Your task to perform on an android device: Search for seafood restaurants on Google Maps Image 0: 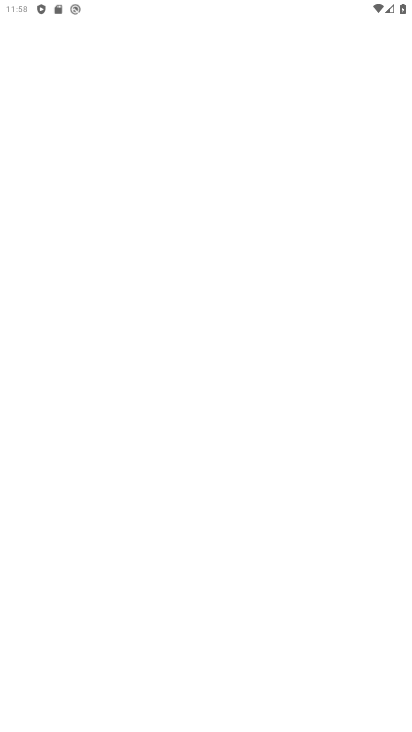
Step 0: press home button
Your task to perform on an android device: Search for seafood restaurants on Google Maps Image 1: 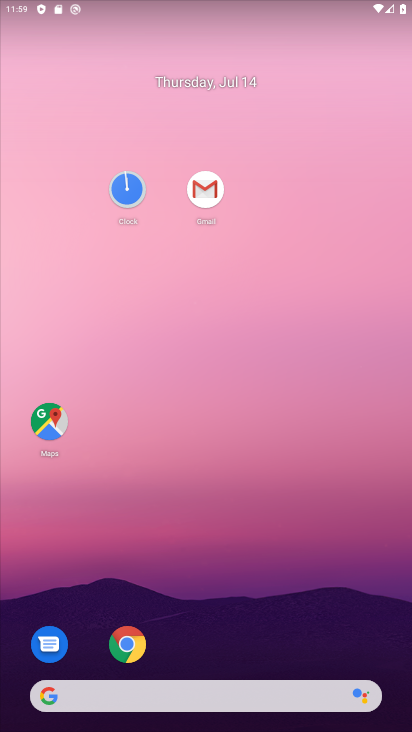
Step 1: click (51, 417)
Your task to perform on an android device: Search for seafood restaurants on Google Maps Image 2: 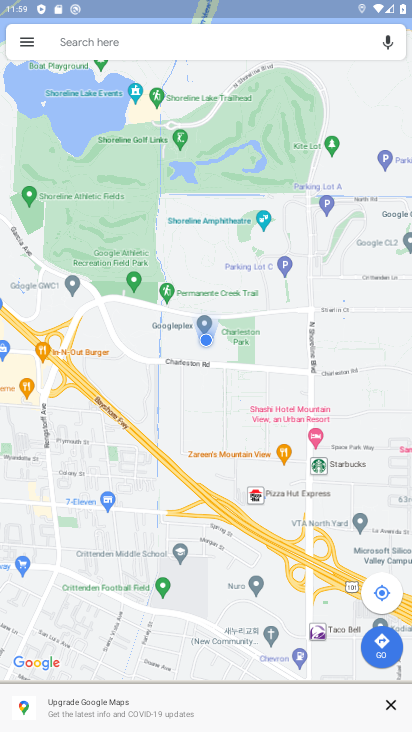
Step 2: click (185, 37)
Your task to perform on an android device: Search for seafood restaurants on Google Maps Image 3: 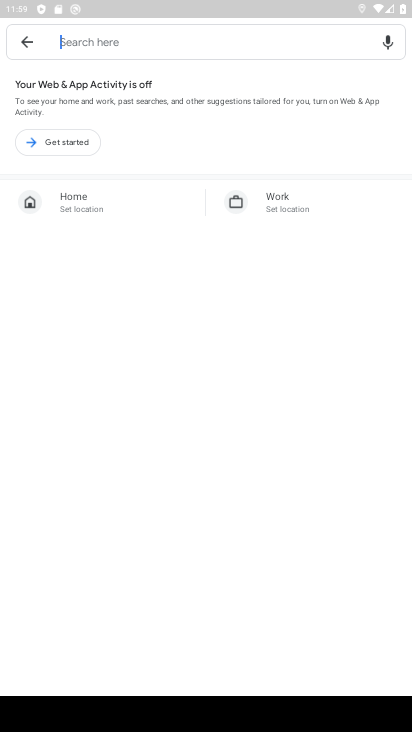
Step 3: type "seafood restaurants"
Your task to perform on an android device: Search for seafood restaurants on Google Maps Image 4: 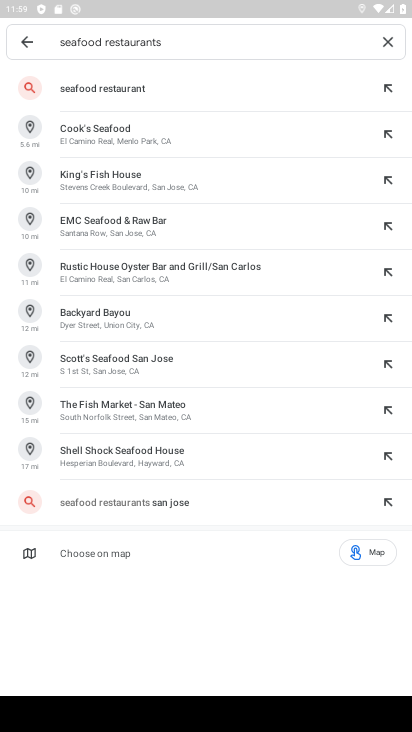
Step 4: click (191, 73)
Your task to perform on an android device: Search for seafood restaurants on Google Maps Image 5: 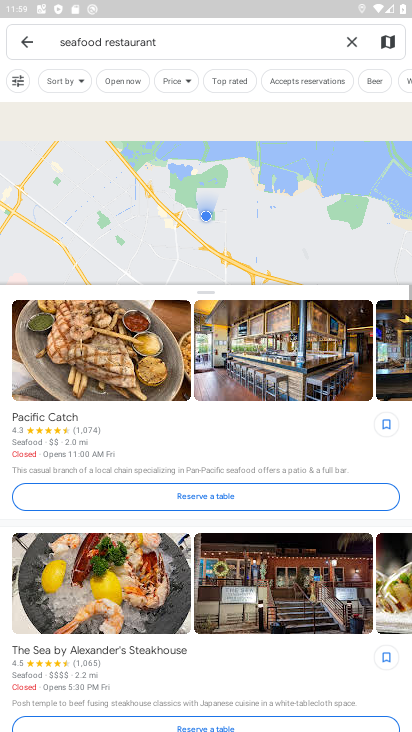
Step 5: task complete